Your task to perform on an android device: turn on location history Image 0: 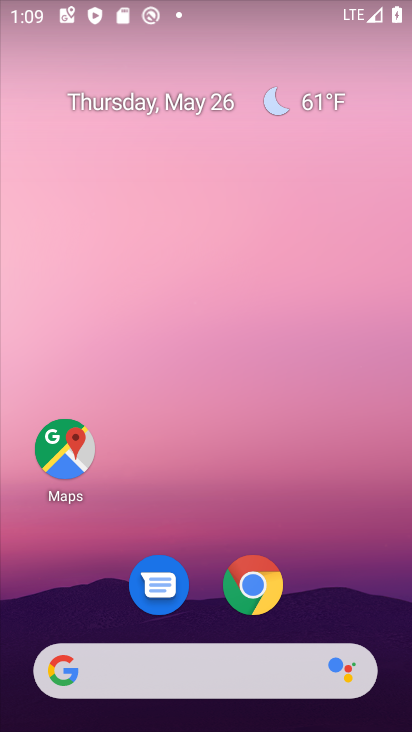
Step 0: drag from (211, 515) to (273, 11)
Your task to perform on an android device: turn on location history Image 1: 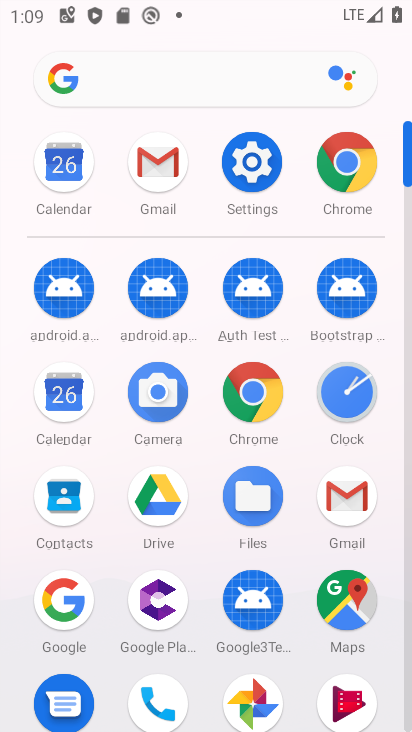
Step 1: click (260, 152)
Your task to perform on an android device: turn on location history Image 2: 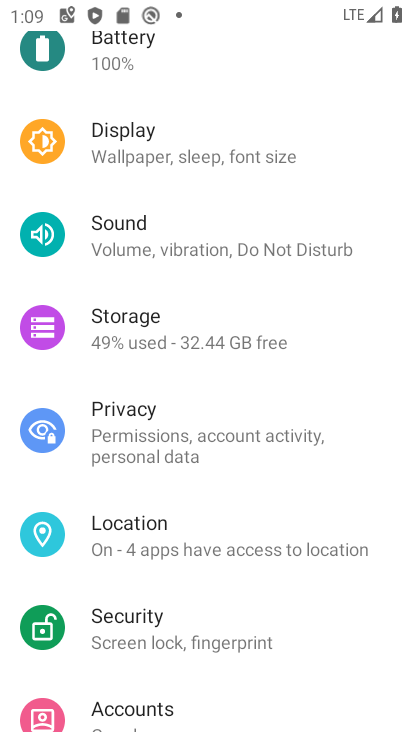
Step 2: click (254, 545)
Your task to perform on an android device: turn on location history Image 3: 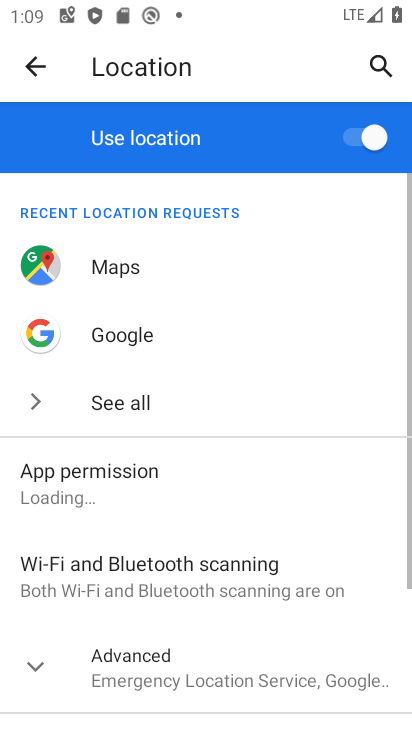
Step 3: drag from (254, 544) to (270, 297)
Your task to perform on an android device: turn on location history Image 4: 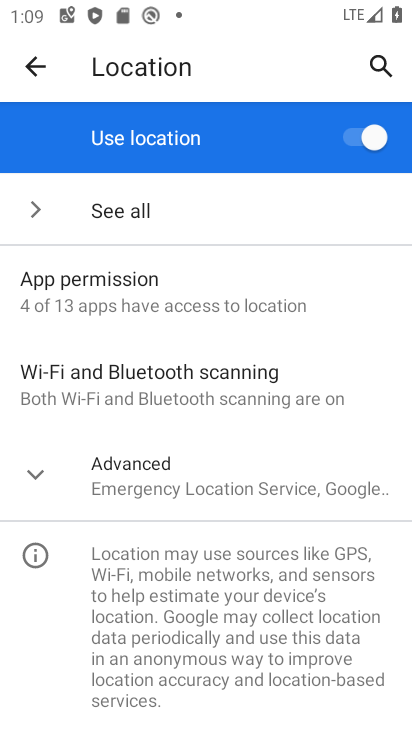
Step 4: click (40, 473)
Your task to perform on an android device: turn on location history Image 5: 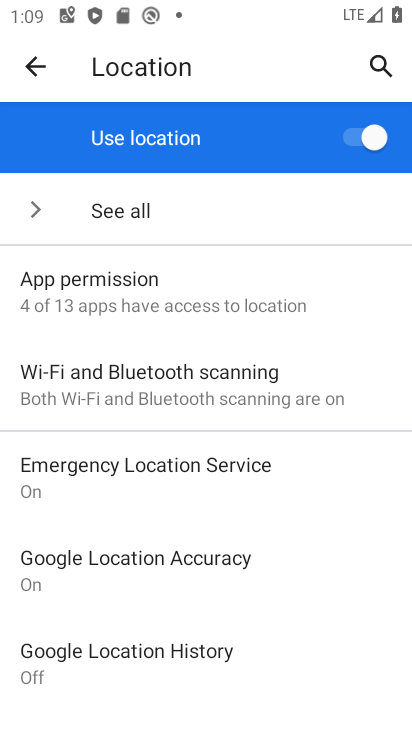
Step 5: drag from (270, 597) to (301, 396)
Your task to perform on an android device: turn on location history Image 6: 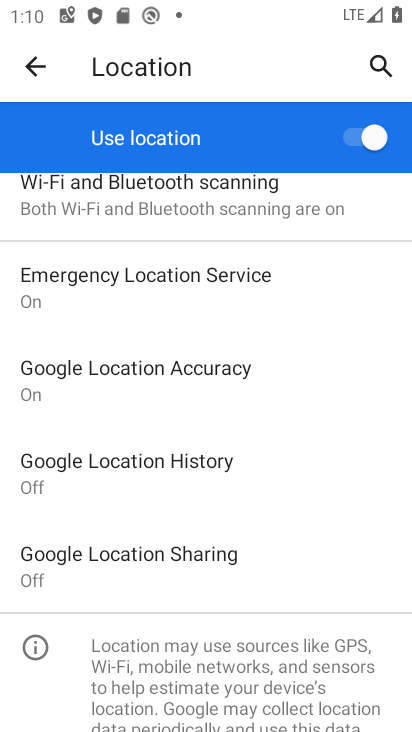
Step 6: click (197, 472)
Your task to perform on an android device: turn on location history Image 7: 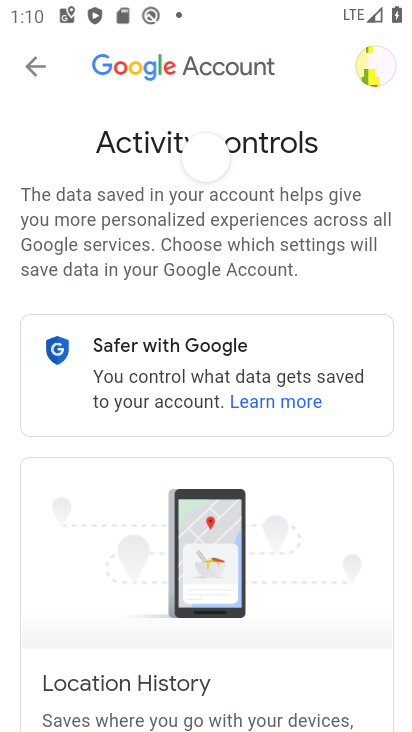
Step 7: task complete